Your task to perform on an android device: open app "Indeed Job Search" (install if not already installed) and enter user name: "quixotic@inbox.com" and password: "microphones" Image 0: 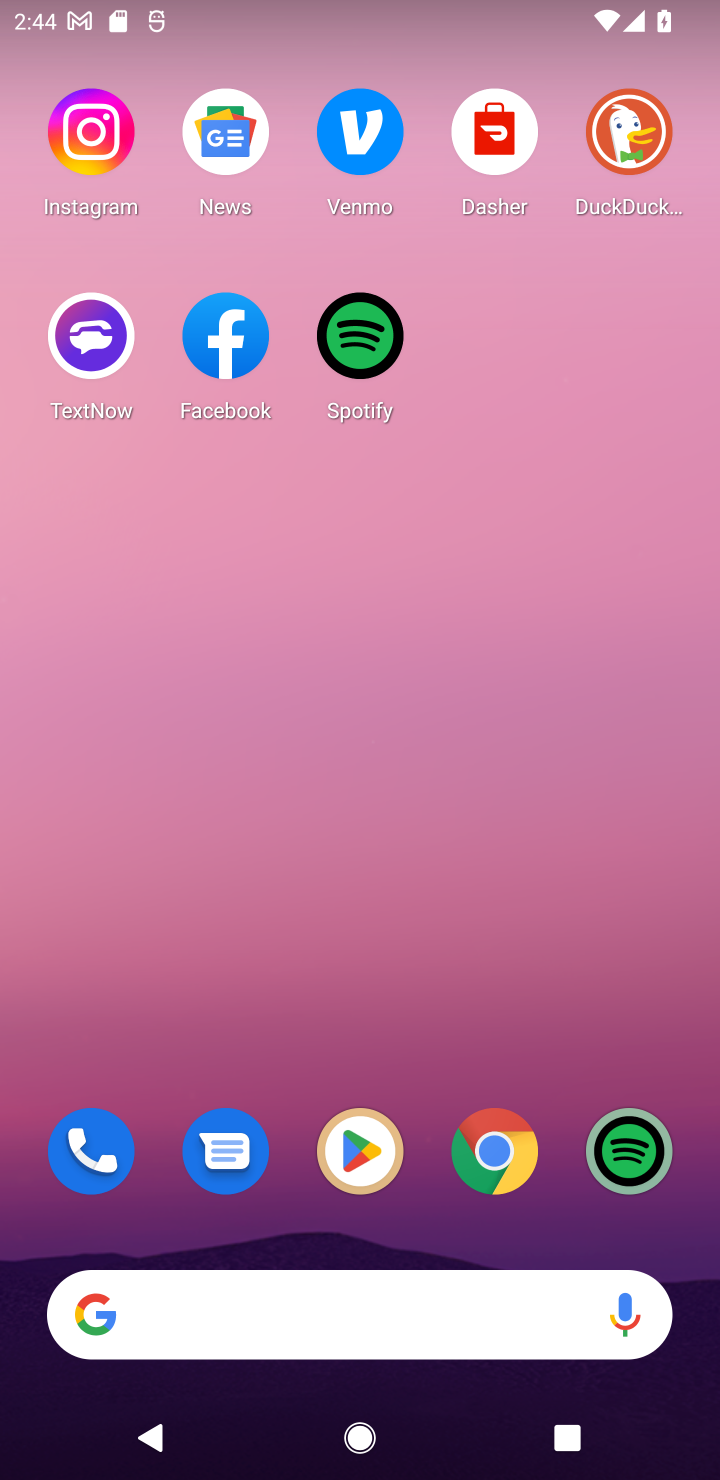
Step 0: click (358, 1160)
Your task to perform on an android device: open app "Indeed Job Search" (install if not already installed) and enter user name: "quixotic@inbox.com" and password: "microphones" Image 1: 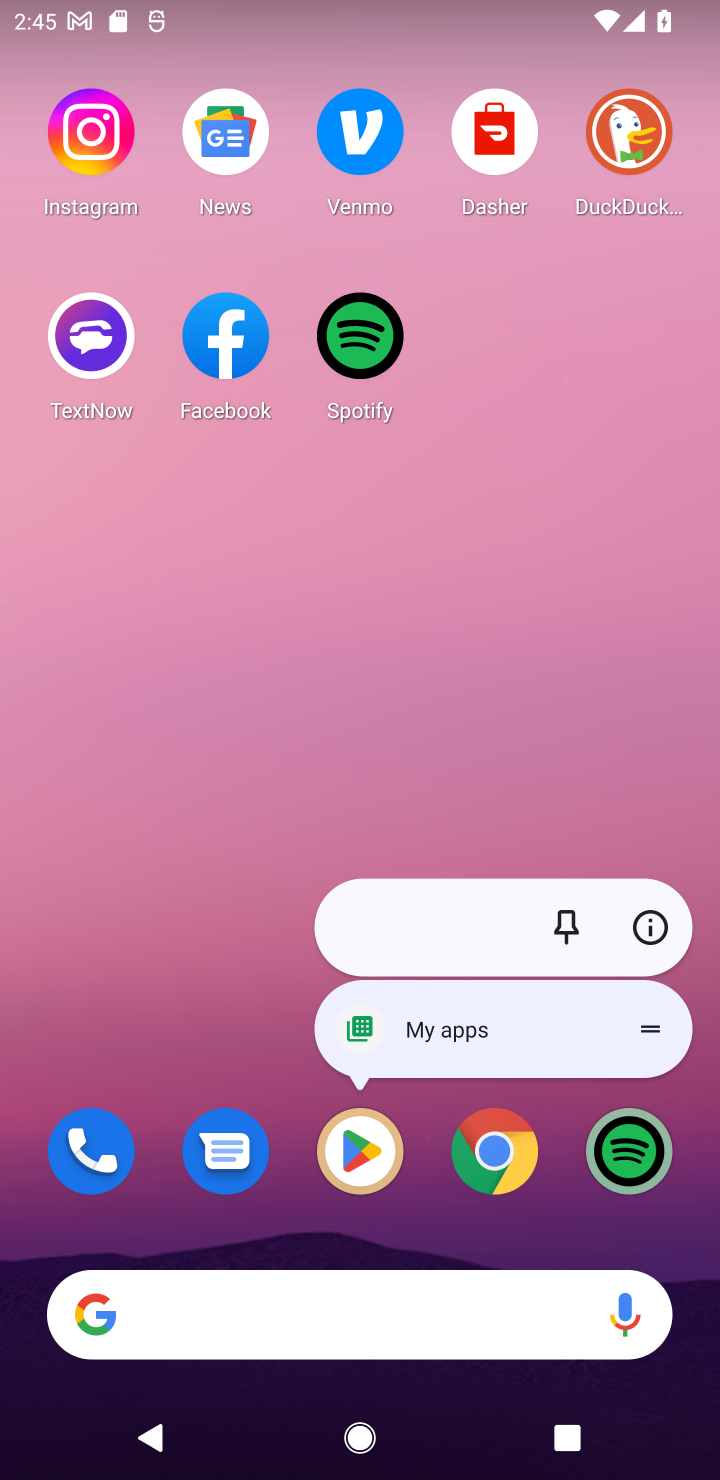
Step 1: click (370, 1146)
Your task to perform on an android device: open app "Indeed Job Search" (install if not already installed) and enter user name: "quixotic@inbox.com" and password: "microphones" Image 2: 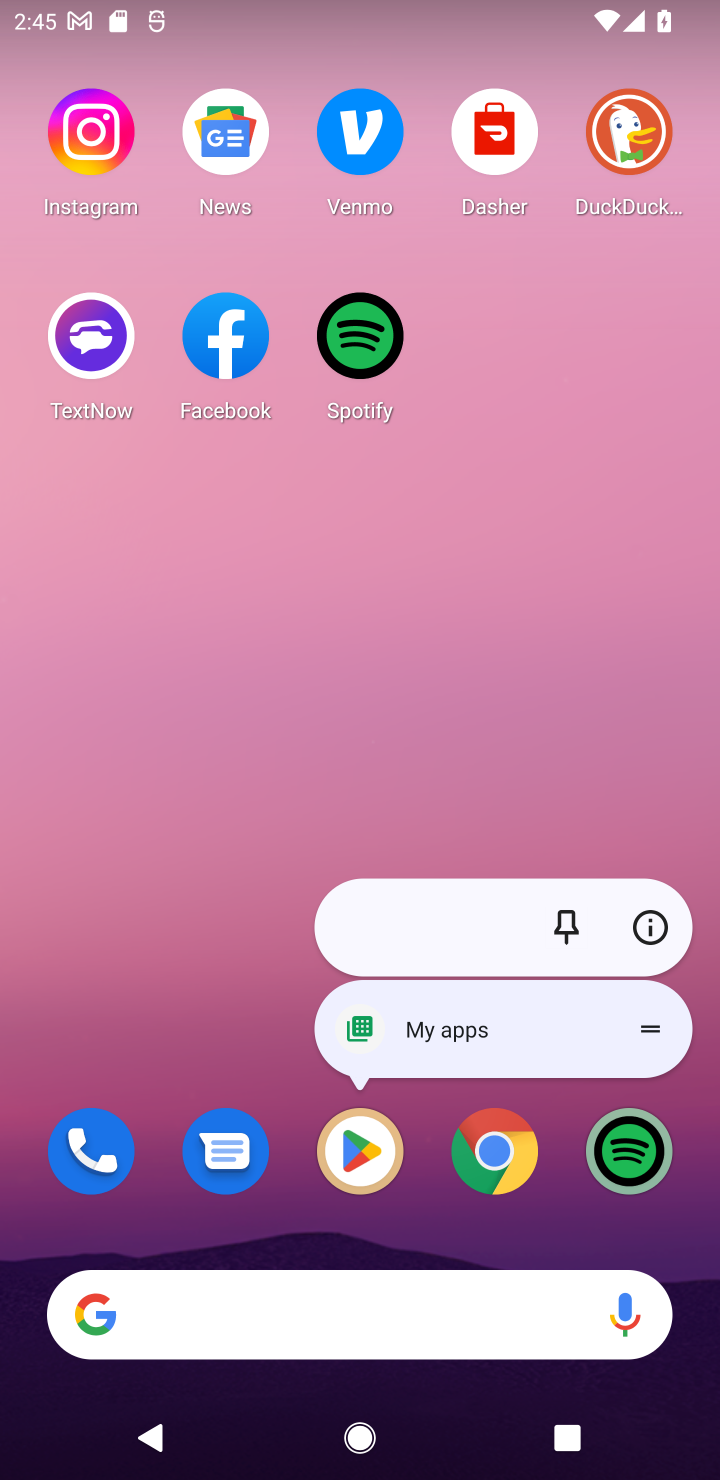
Step 2: click (370, 1146)
Your task to perform on an android device: open app "Indeed Job Search" (install if not already installed) and enter user name: "quixotic@inbox.com" and password: "microphones" Image 3: 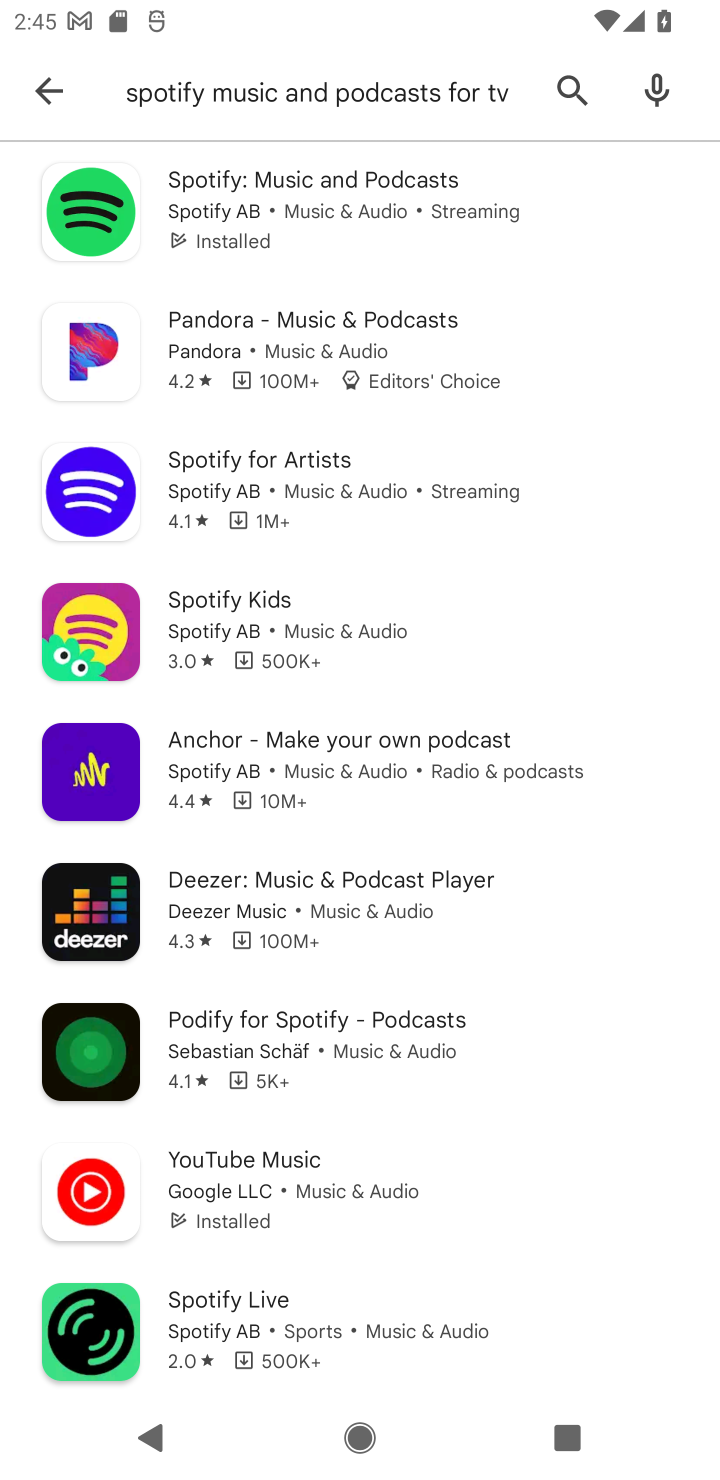
Step 3: click (558, 58)
Your task to perform on an android device: open app "Indeed Job Search" (install if not already installed) and enter user name: "quixotic@inbox.com" and password: "microphones" Image 4: 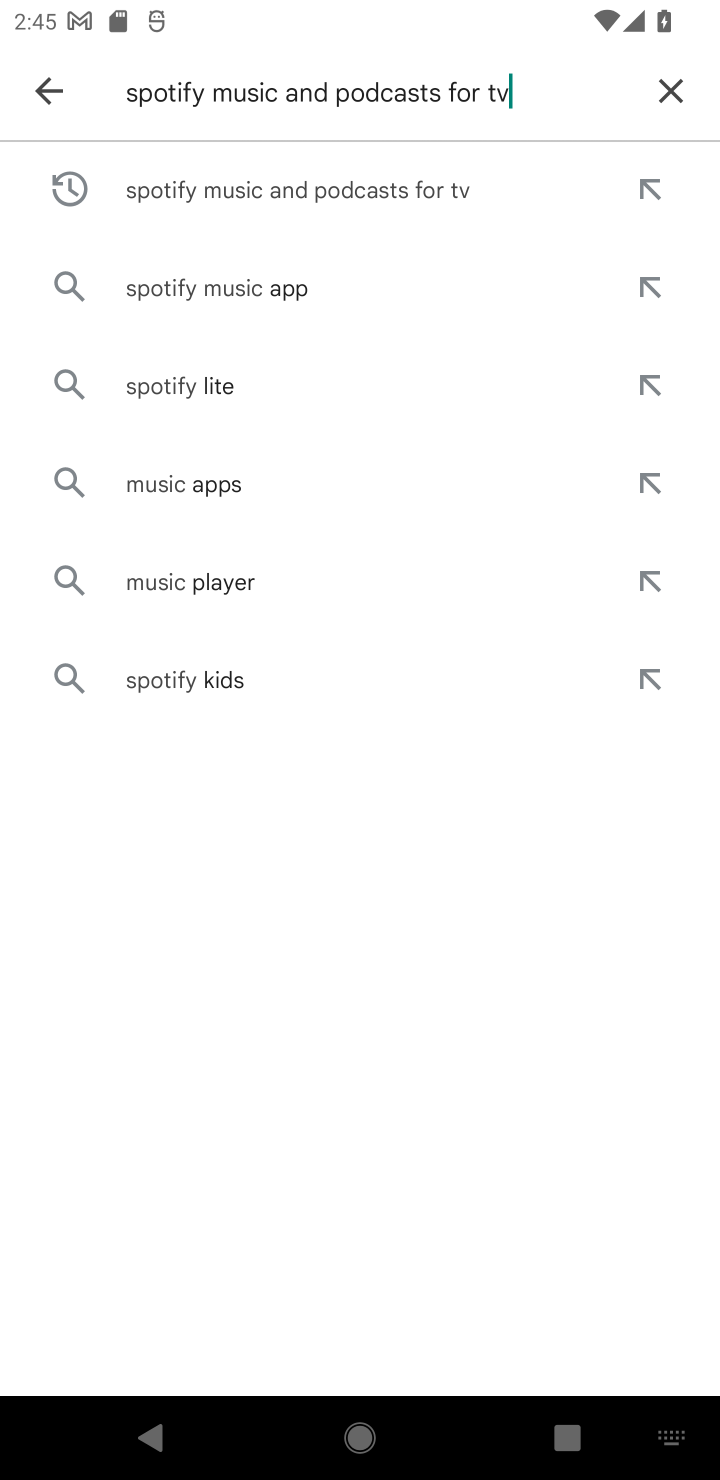
Step 4: click (651, 91)
Your task to perform on an android device: open app "Indeed Job Search" (install if not already installed) and enter user name: "quixotic@inbox.com" and password: "microphones" Image 5: 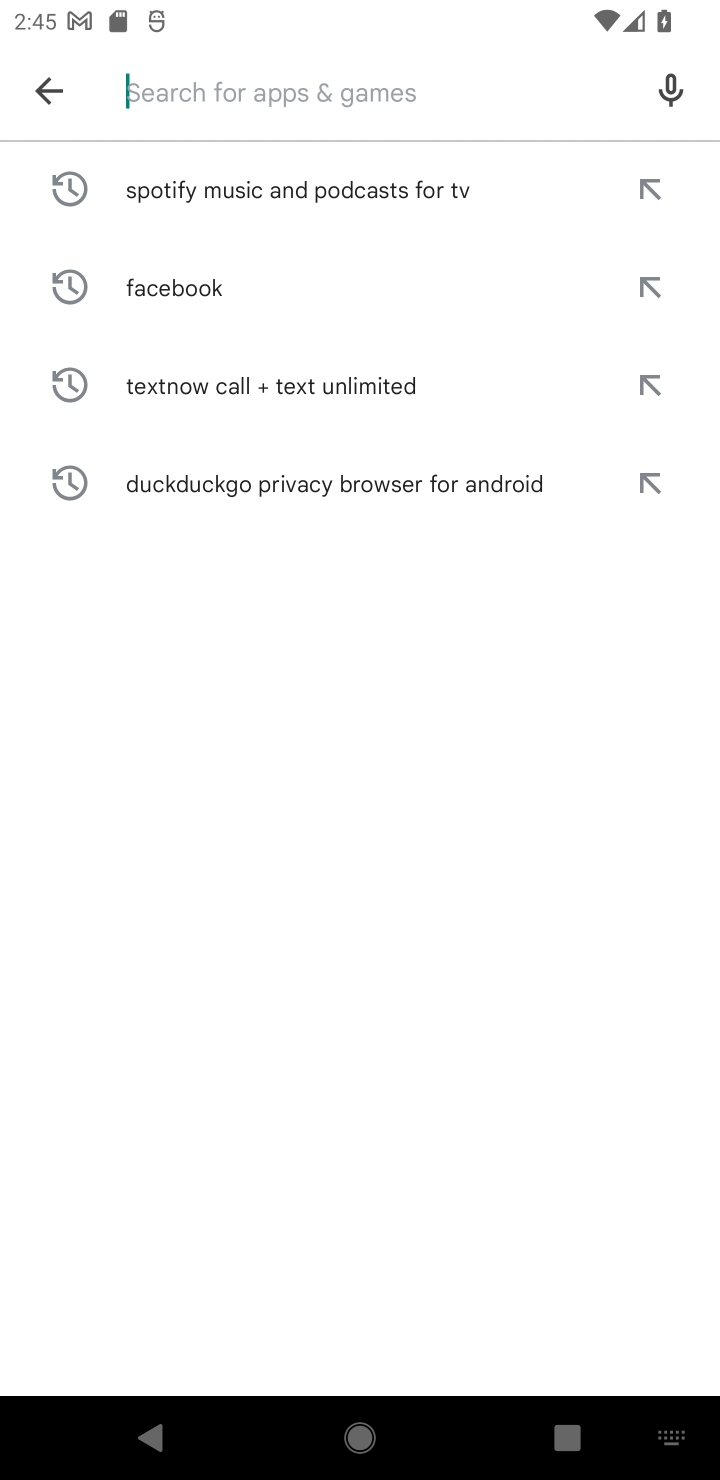
Step 5: type "Indeed Job Search"
Your task to perform on an android device: open app "Indeed Job Search" (install if not already installed) and enter user name: "quixotic@inbox.com" and password: "microphones" Image 6: 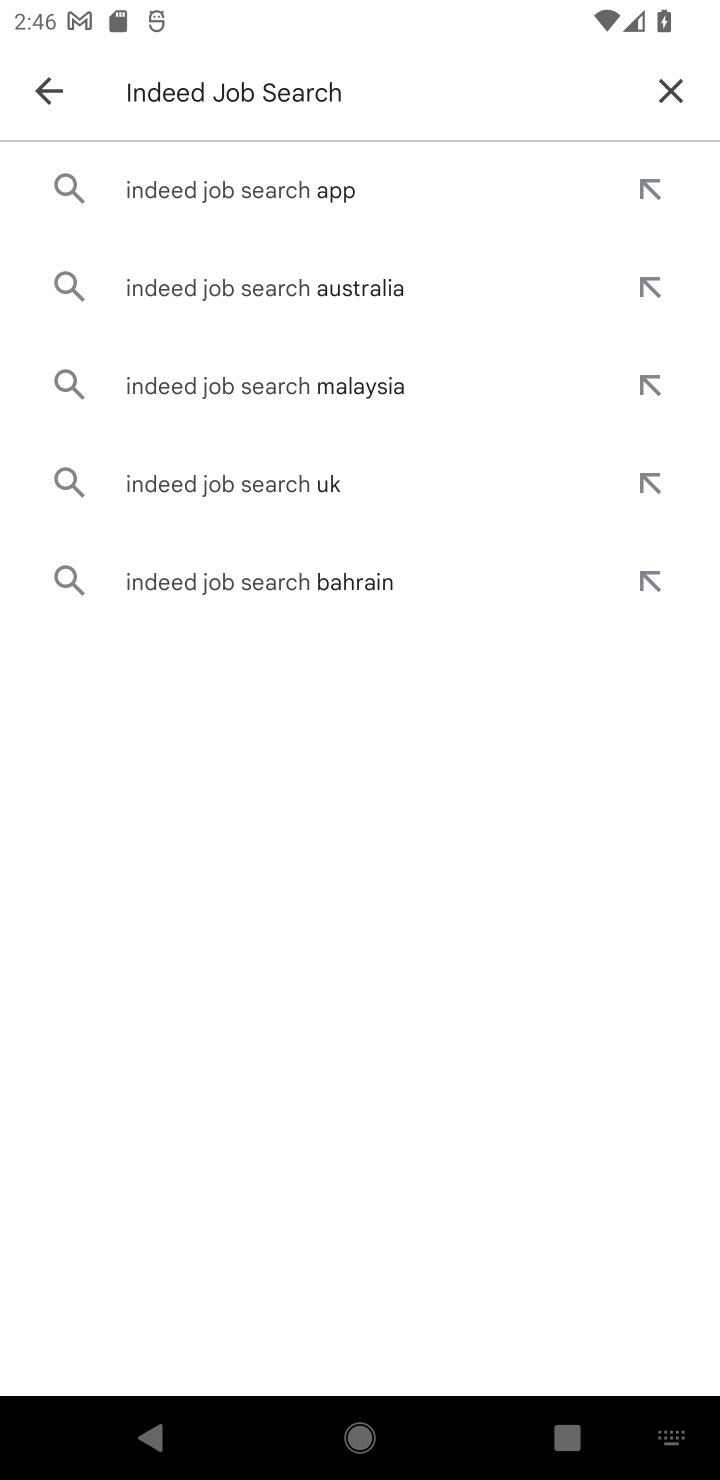
Step 6: click (184, 182)
Your task to perform on an android device: open app "Indeed Job Search" (install if not already installed) and enter user name: "quixotic@inbox.com" and password: "microphones" Image 7: 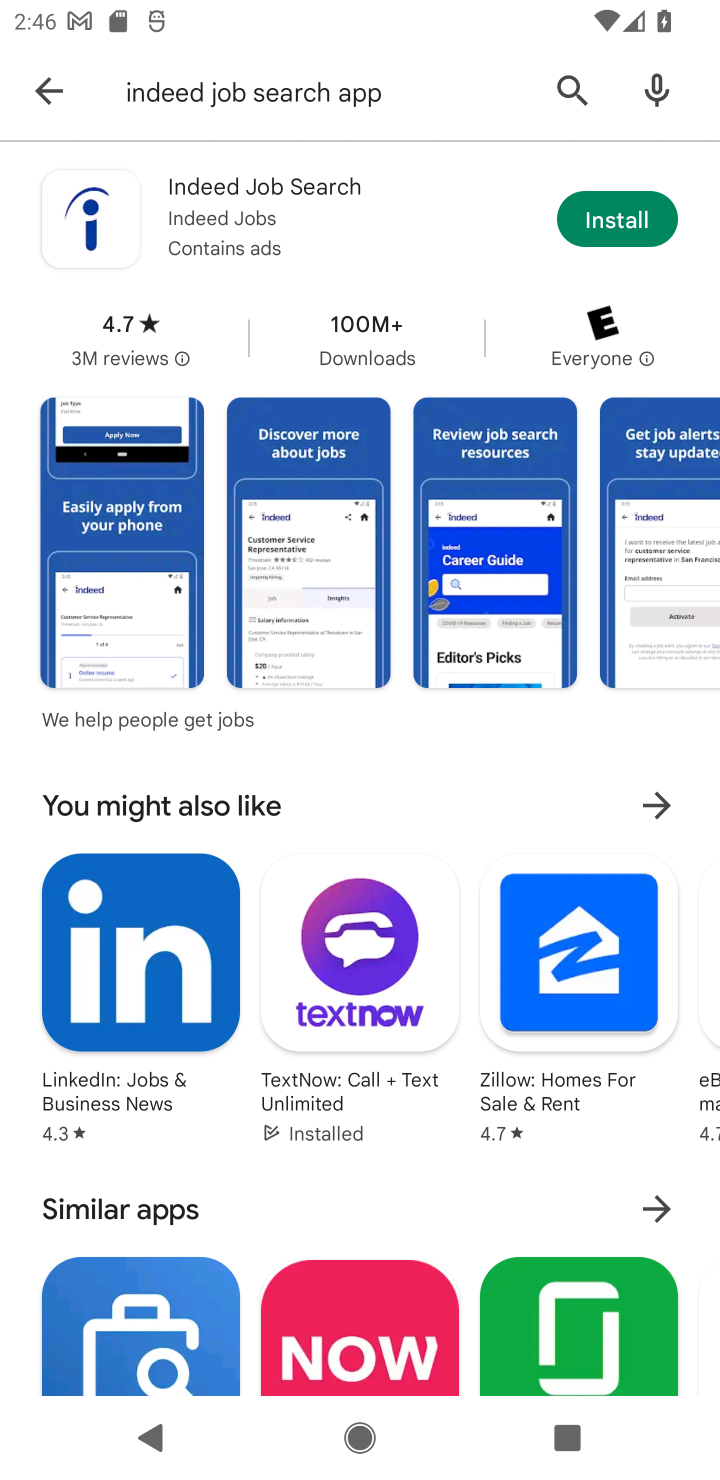
Step 7: click (610, 211)
Your task to perform on an android device: open app "Indeed Job Search" (install if not already installed) and enter user name: "quixotic@inbox.com" and password: "microphones" Image 8: 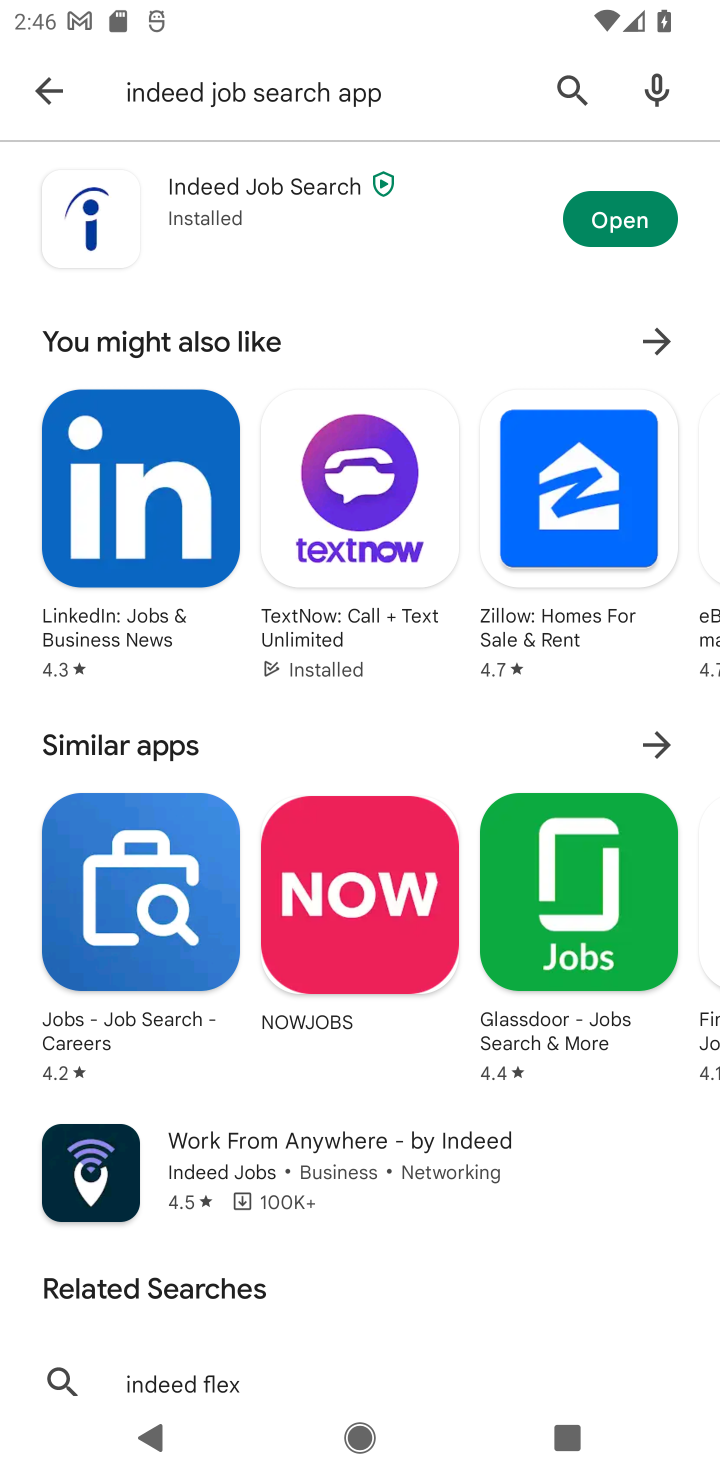
Step 8: click (610, 215)
Your task to perform on an android device: open app "Indeed Job Search" (install if not already installed) and enter user name: "quixotic@inbox.com" and password: "microphones" Image 9: 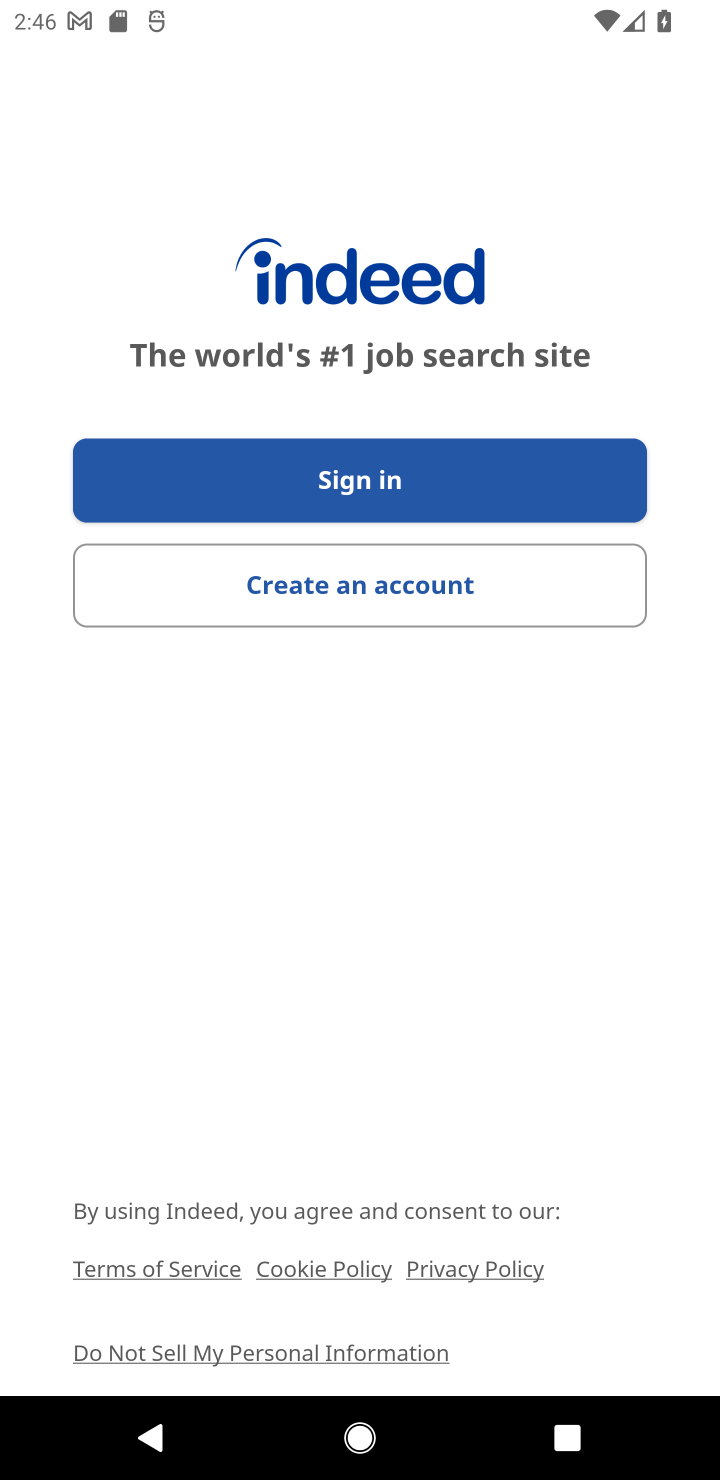
Step 9: click (368, 481)
Your task to perform on an android device: open app "Indeed Job Search" (install if not already installed) and enter user name: "quixotic@inbox.com" and password: "microphones" Image 10: 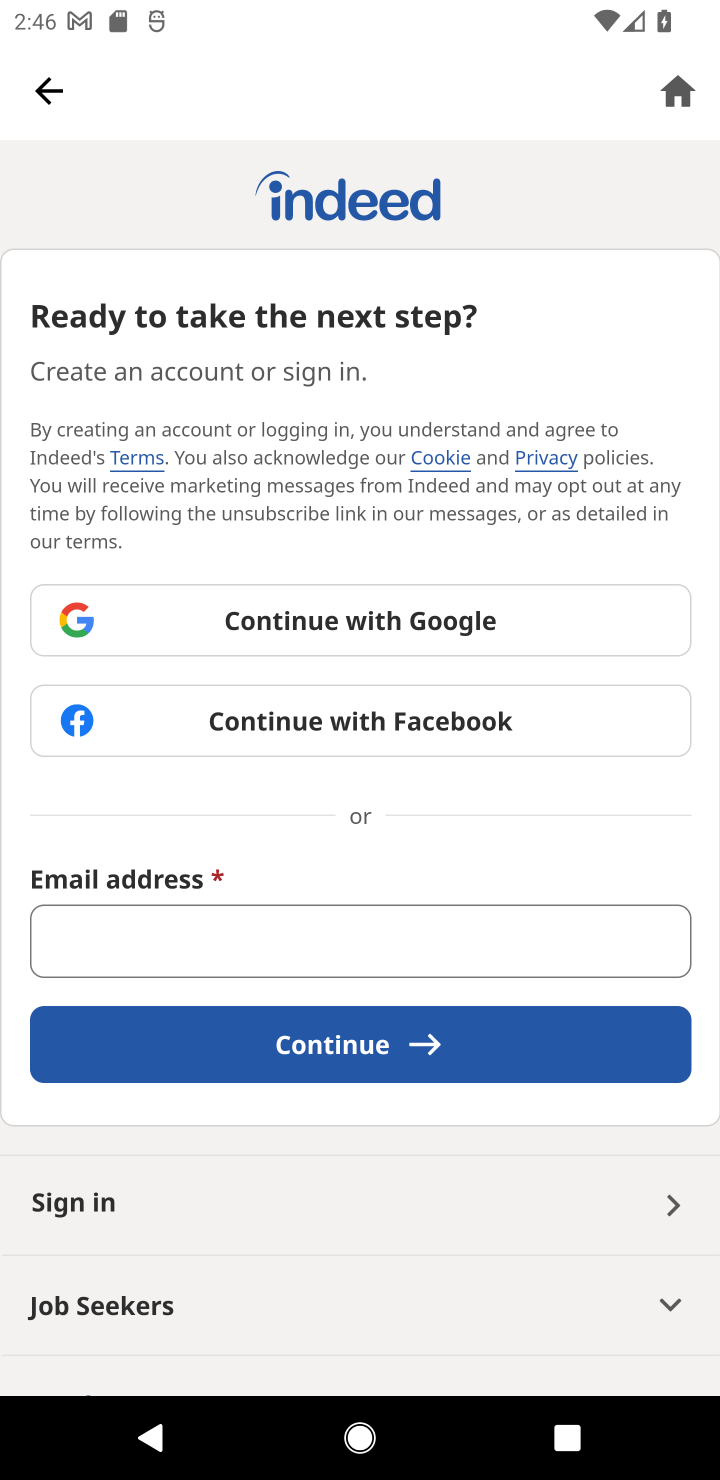
Step 10: click (115, 911)
Your task to perform on an android device: open app "Indeed Job Search" (install if not already installed) and enter user name: "quixotic@inbox.com" and password: "microphones" Image 11: 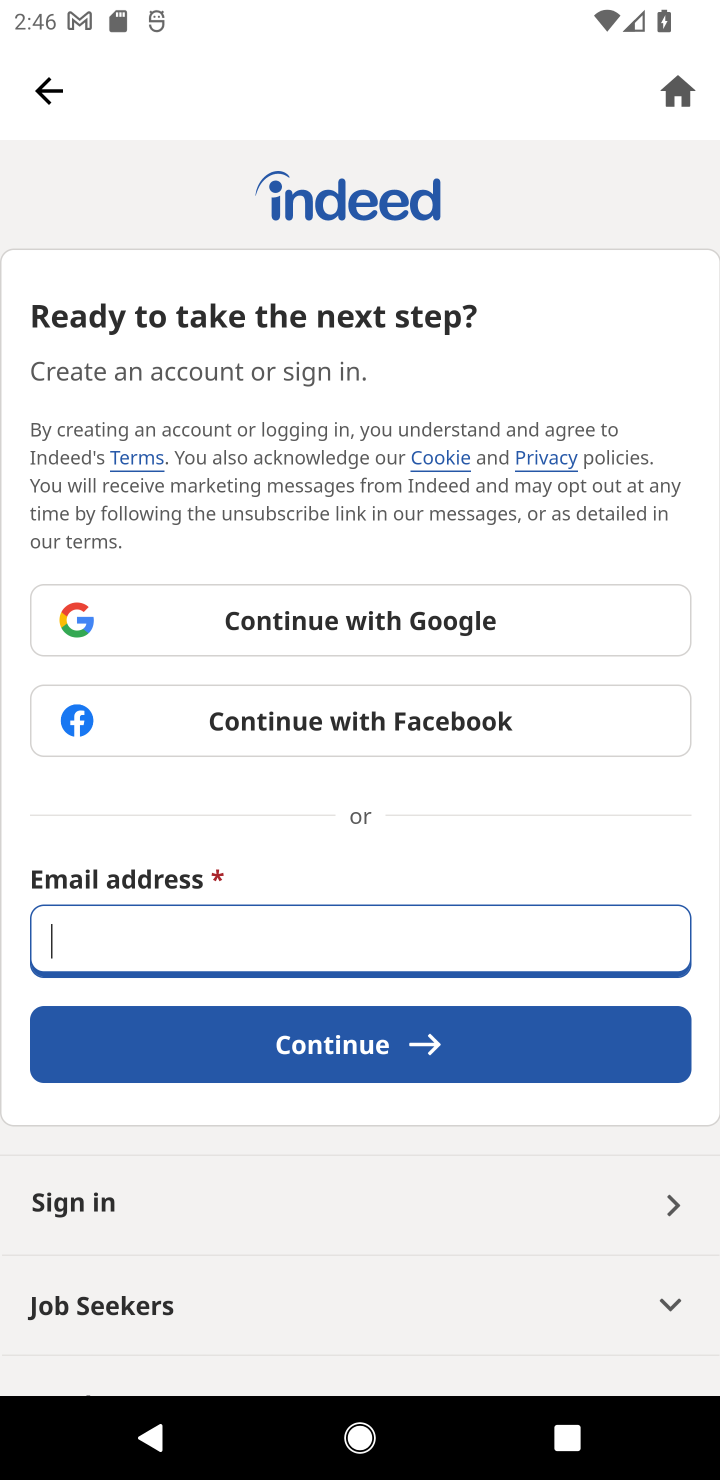
Step 11: click (86, 920)
Your task to perform on an android device: open app "Indeed Job Search" (install if not already installed) and enter user name: "quixotic@inbox.com" and password: "microphones" Image 12: 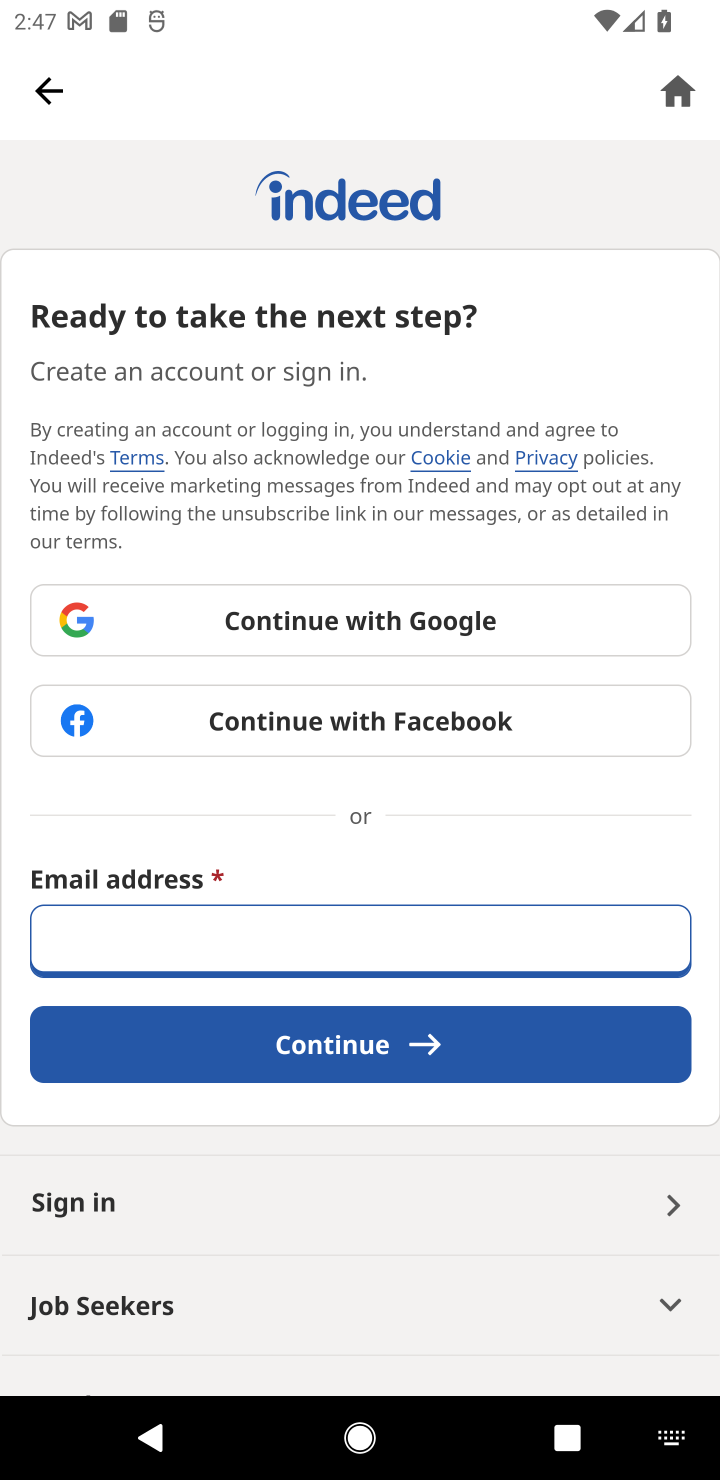
Step 12: type "quixotic@inbox.com"
Your task to perform on an android device: open app "Indeed Job Search" (install if not already installed) and enter user name: "quixotic@inbox.com" and password: "microphones" Image 13: 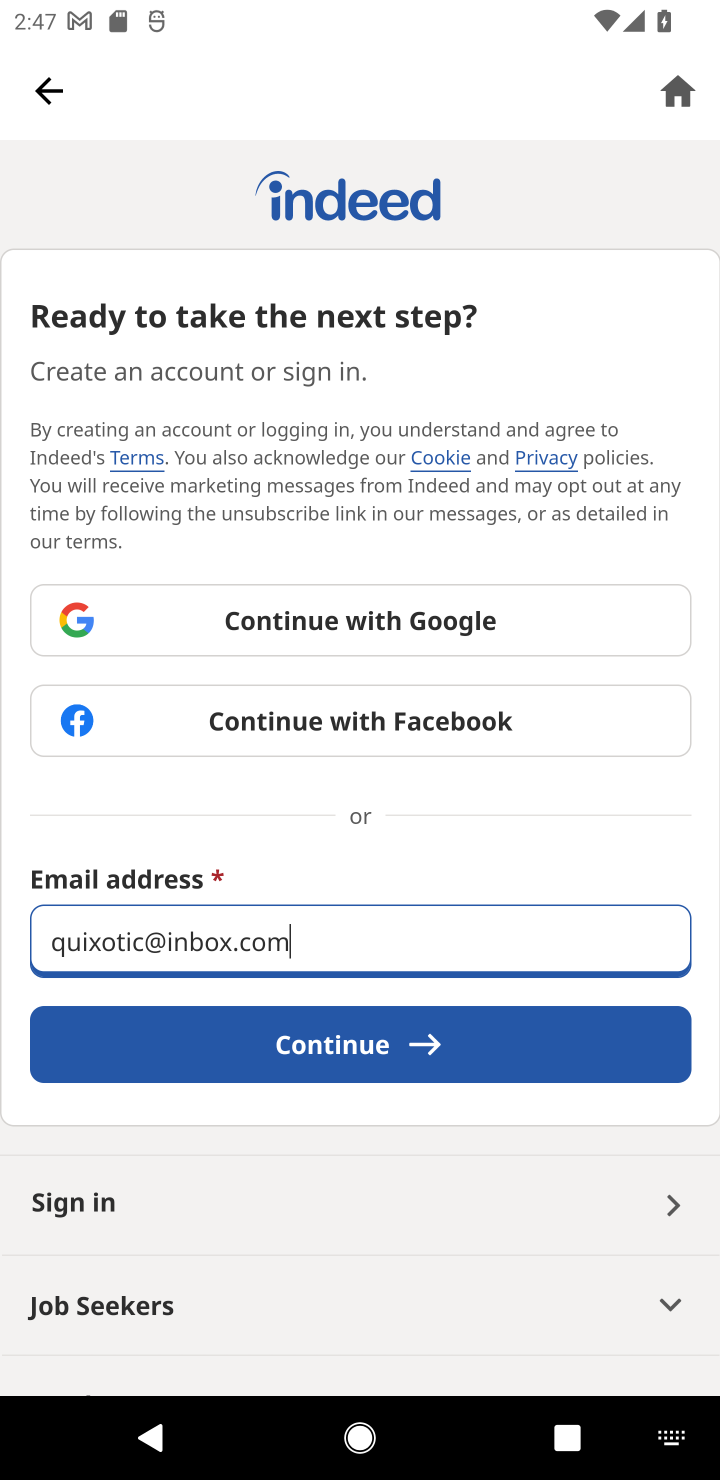
Step 13: click (362, 1046)
Your task to perform on an android device: open app "Indeed Job Search" (install if not already installed) and enter user name: "quixotic@inbox.com" and password: "microphones" Image 14: 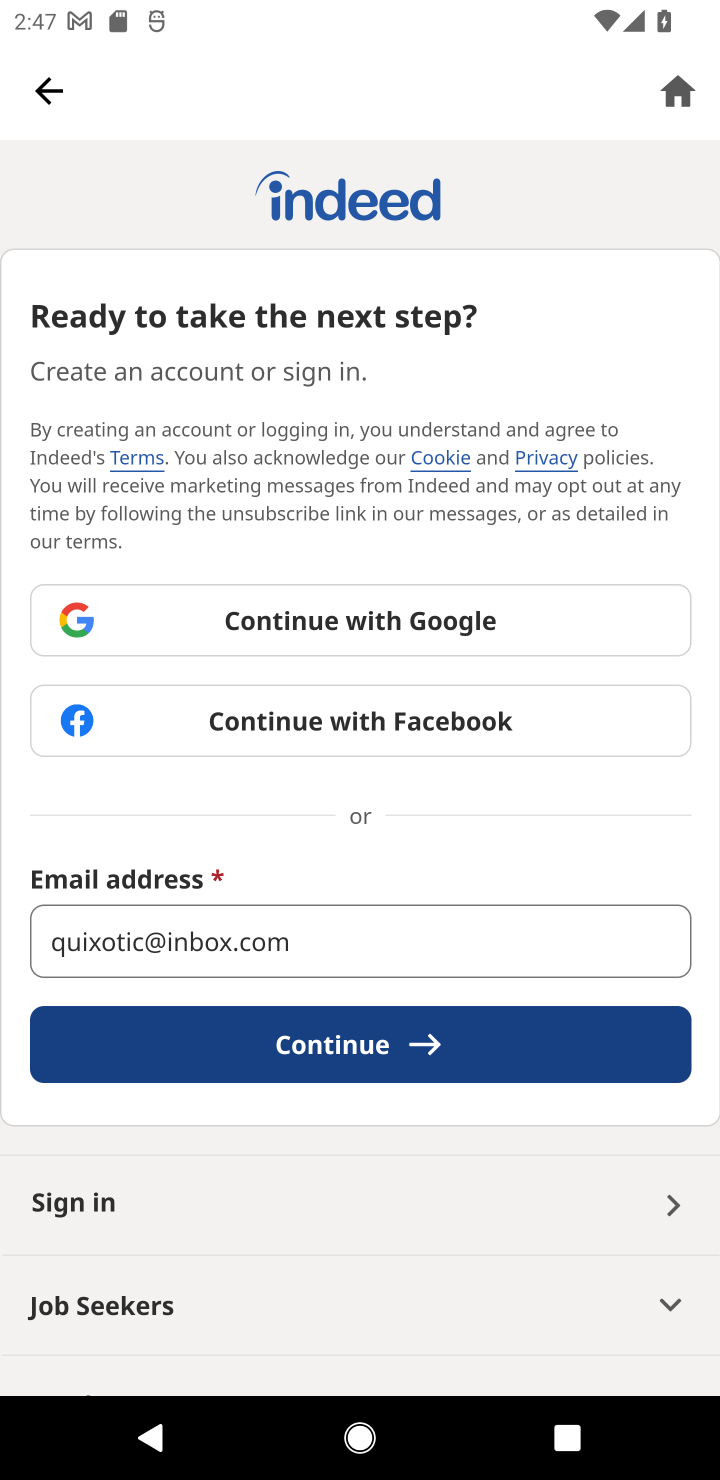
Step 14: task complete